Your task to perform on an android device: change timer sound Image 0: 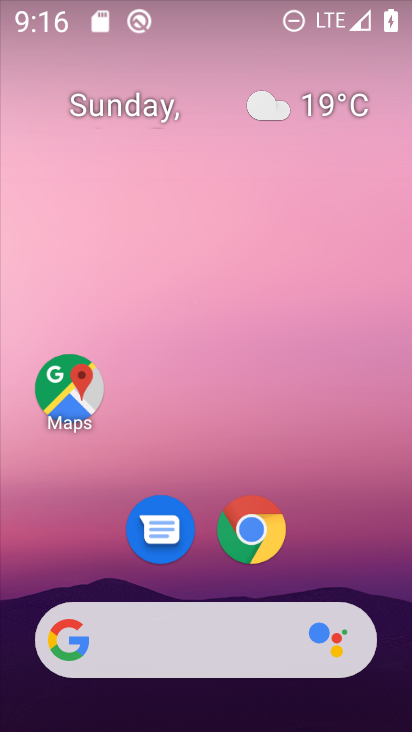
Step 0: drag from (214, 574) to (226, 112)
Your task to perform on an android device: change timer sound Image 1: 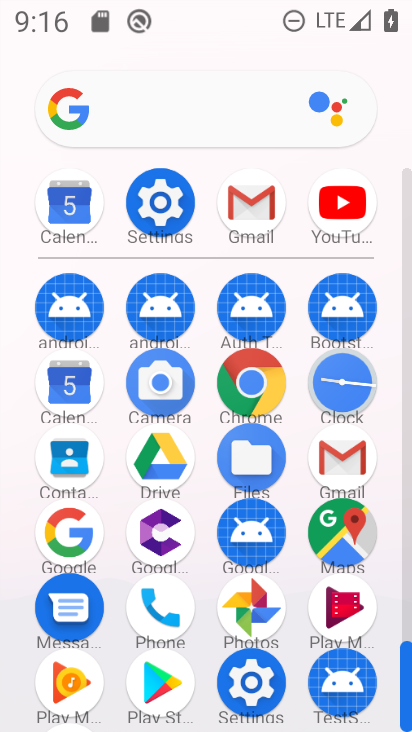
Step 1: click (338, 372)
Your task to perform on an android device: change timer sound Image 2: 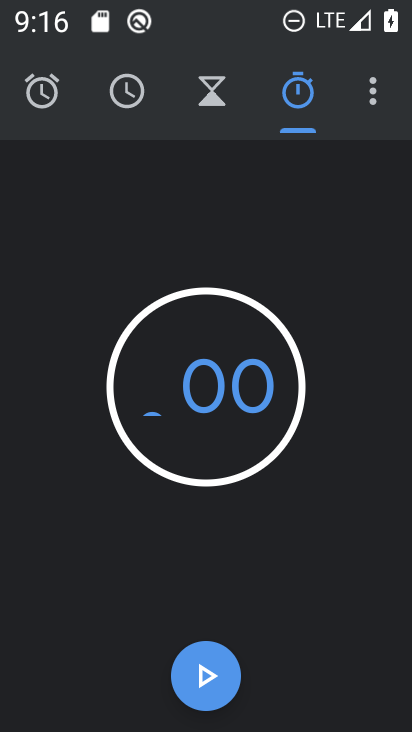
Step 2: click (377, 93)
Your task to perform on an android device: change timer sound Image 3: 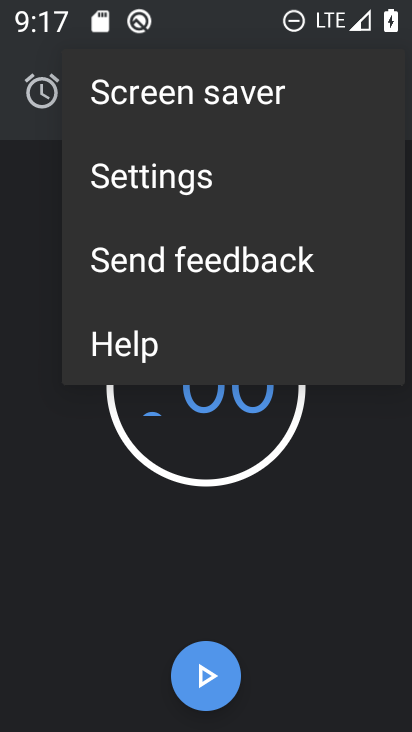
Step 3: click (223, 174)
Your task to perform on an android device: change timer sound Image 4: 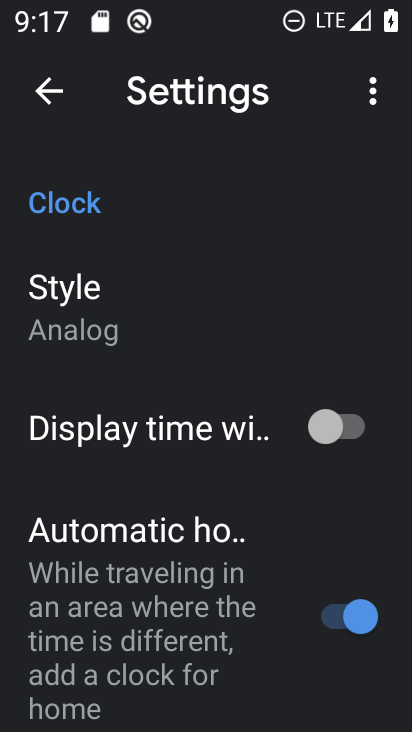
Step 4: drag from (217, 651) to (239, 74)
Your task to perform on an android device: change timer sound Image 5: 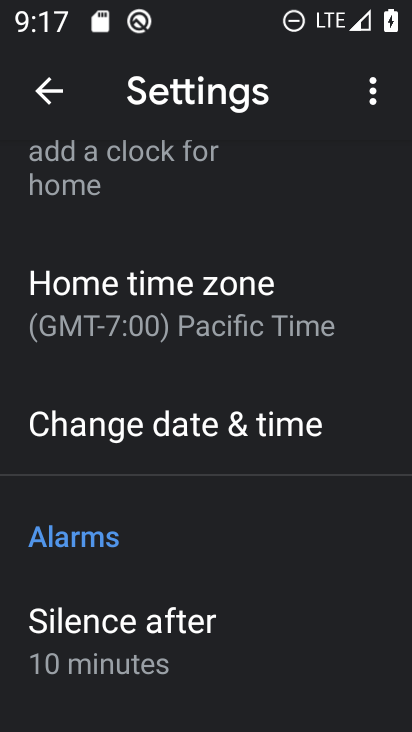
Step 5: drag from (259, 668) to (263, 224)
Your task to perform on an android device: change timer sound Image 6: 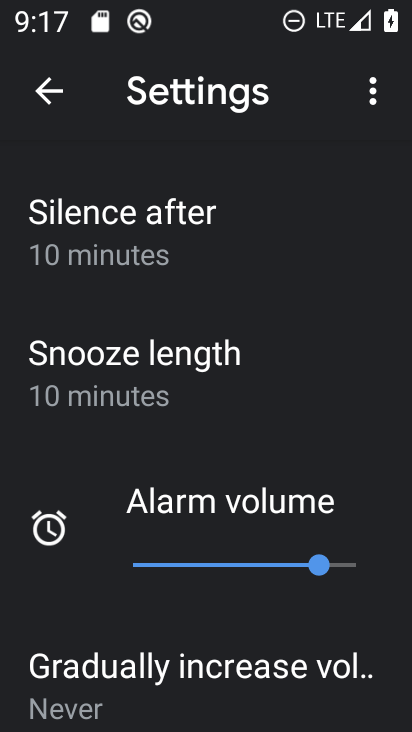
Step 6: drag from (263, 608) to (261, 146)
Your task to perform on an android device: change timer sound Image 7: 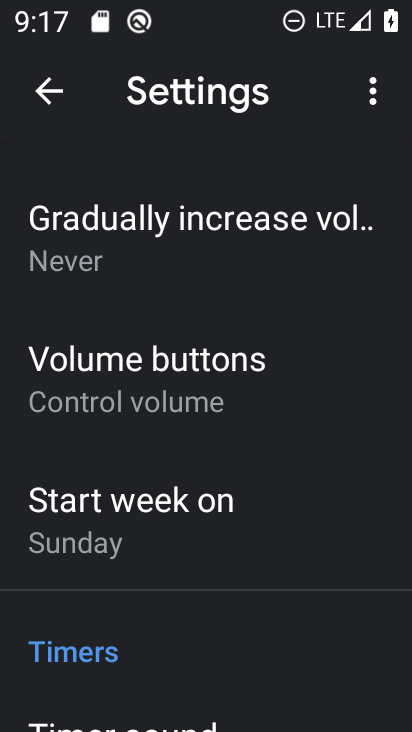
Step 7: drag from (199, 647) to (203, 410)
Your task to perform on an android device: change timer sound Image 8: 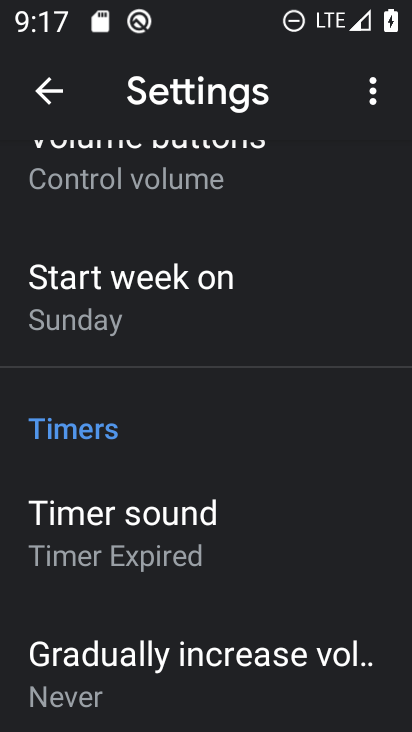
Step 8: click (215, 531)
Your task to perform on an android device: change timer sound Image 9: 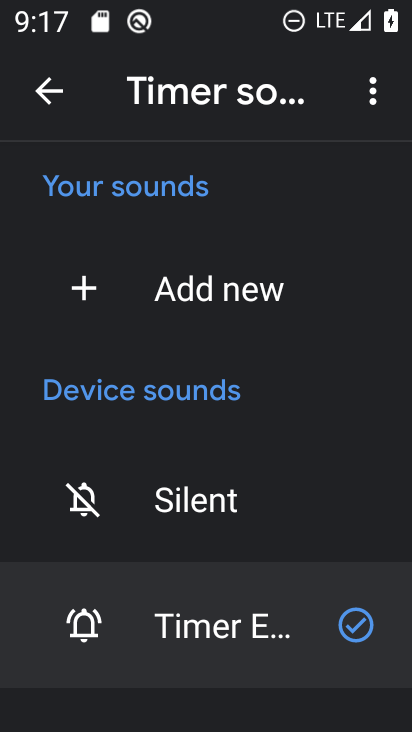
Step 9: drag from (270, 631) to (297, 228)
Your task to perform on an android device: change timer sound Image 10: 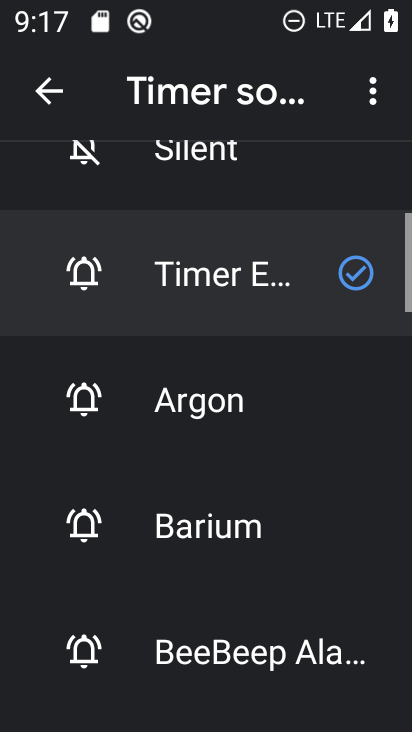
Step 10: click (297, 185)
Your task to perform on an android device: change timer sound Image 11: 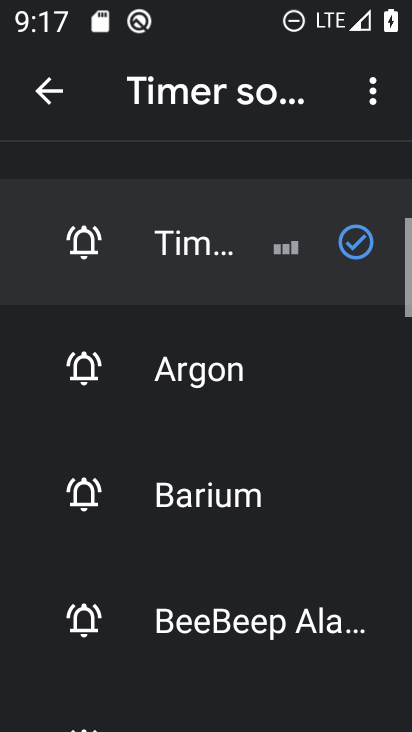
Step 11: click (302, 623)
Your task to perform on an android device: change timer sound Image 12: 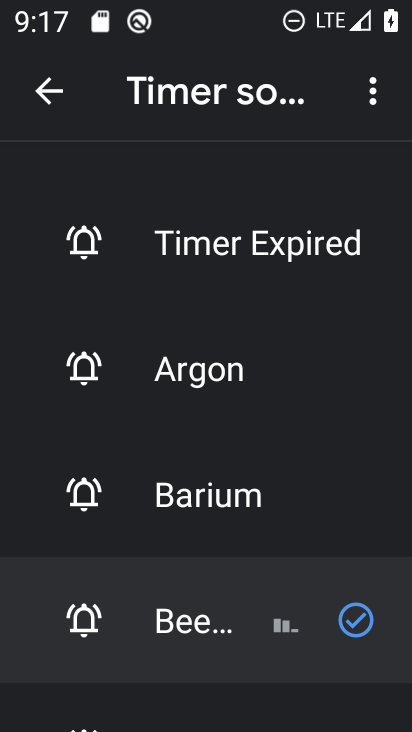
Step 12: task complete